Your task to perform on an android device: install app "Duolingo: language lessons" Image 0: 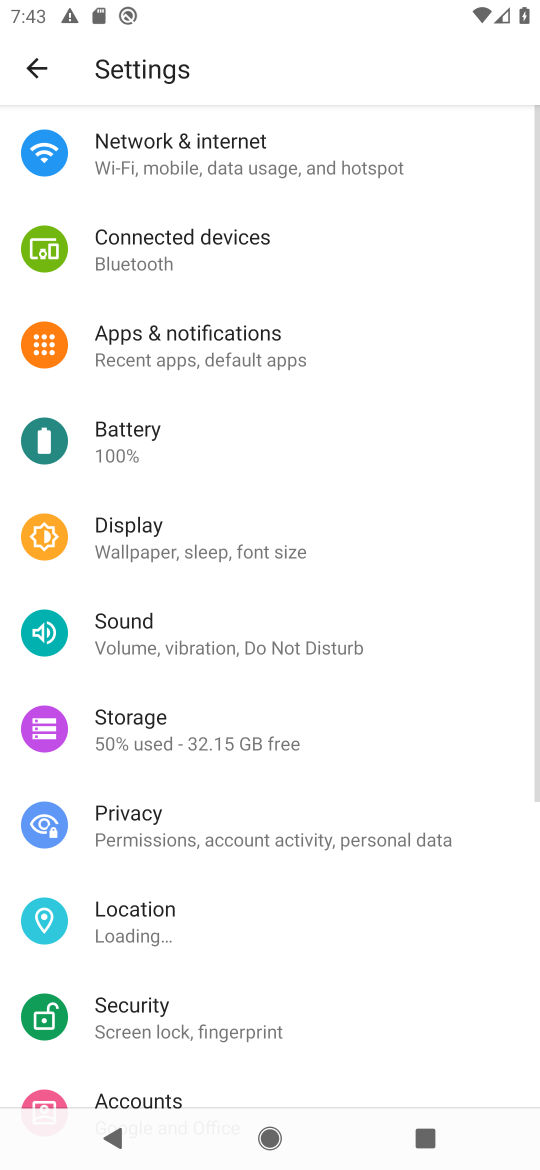
Step 0: press home button
Your task to perform on an android device: install app "Duolingo: language lessons" Image 1: 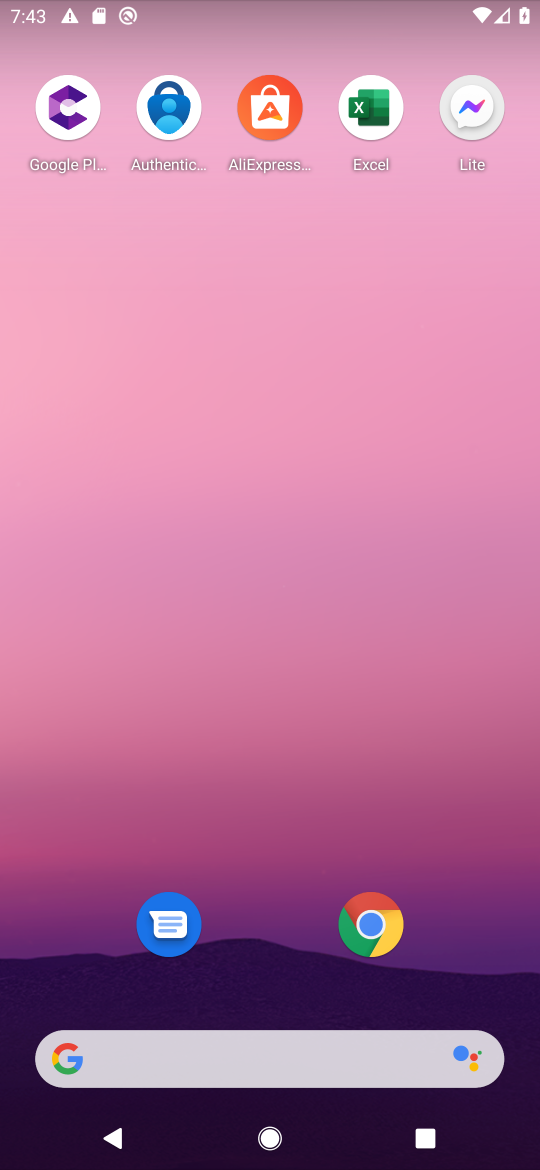
Step 1: drag from (247, 952) to (213, 280)
Your task to perform on an android device: install app "Duolingo: language lessons" Image 2: 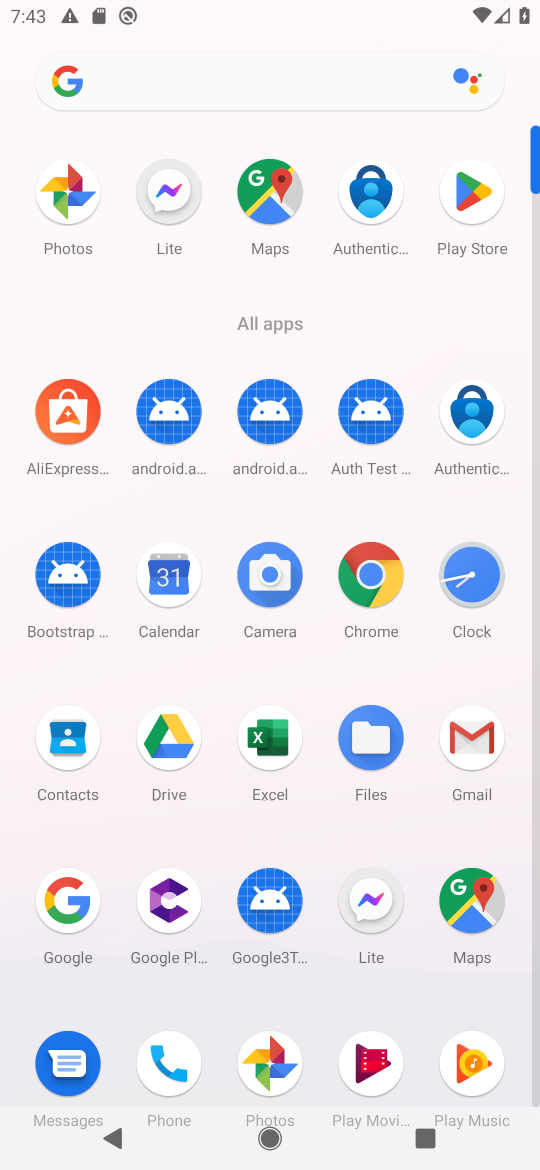
Step 2: click (472, 181)
Your task to perform on an android device: install app "Duolingo: language lessons" Image 3: 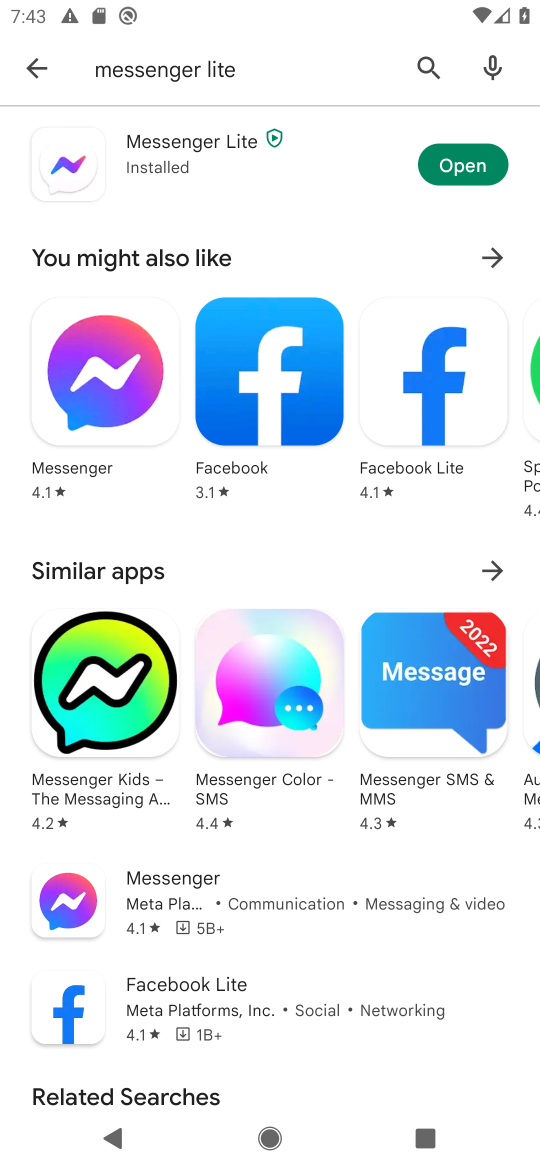
Step 3: click (424, 67)
Your task to perform on an android device: install app "Duolingo: language lessons" Image 4: 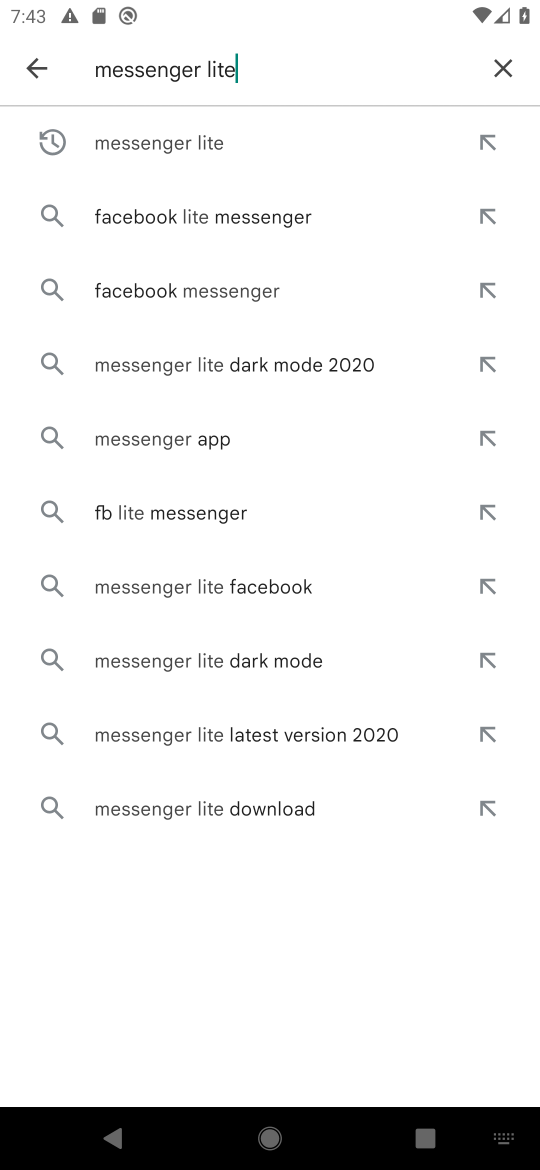
Step 4: click (493, 69)
Your task to perform on an android device: install app "Duolingo: language lessons" Image 5: 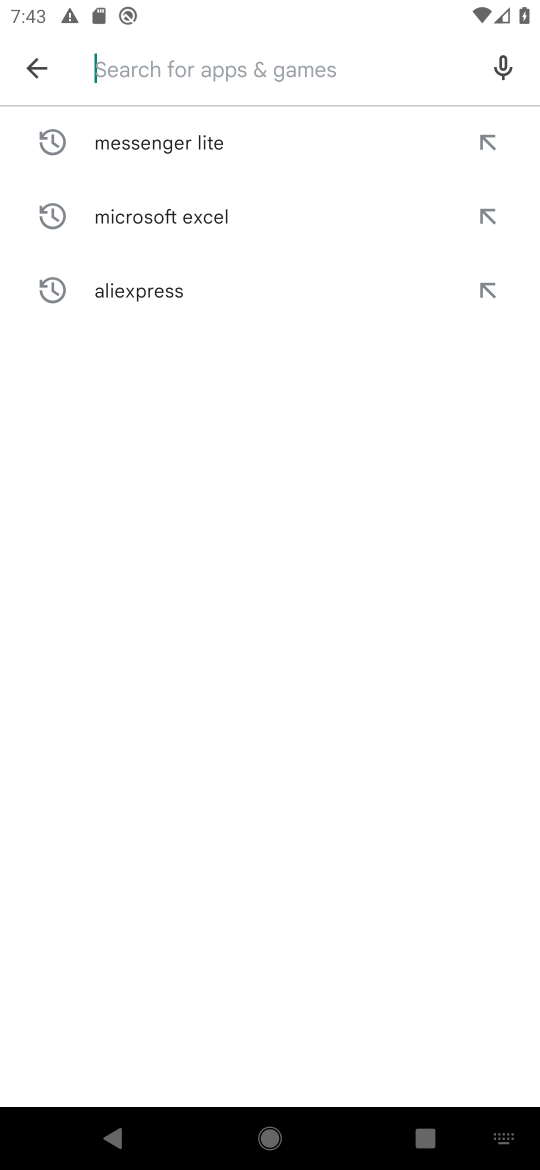
Step 5: type "Duolingo: language lessons"
Your task to perform on an android device: install app "Duolingo: language lessons" Image 6: 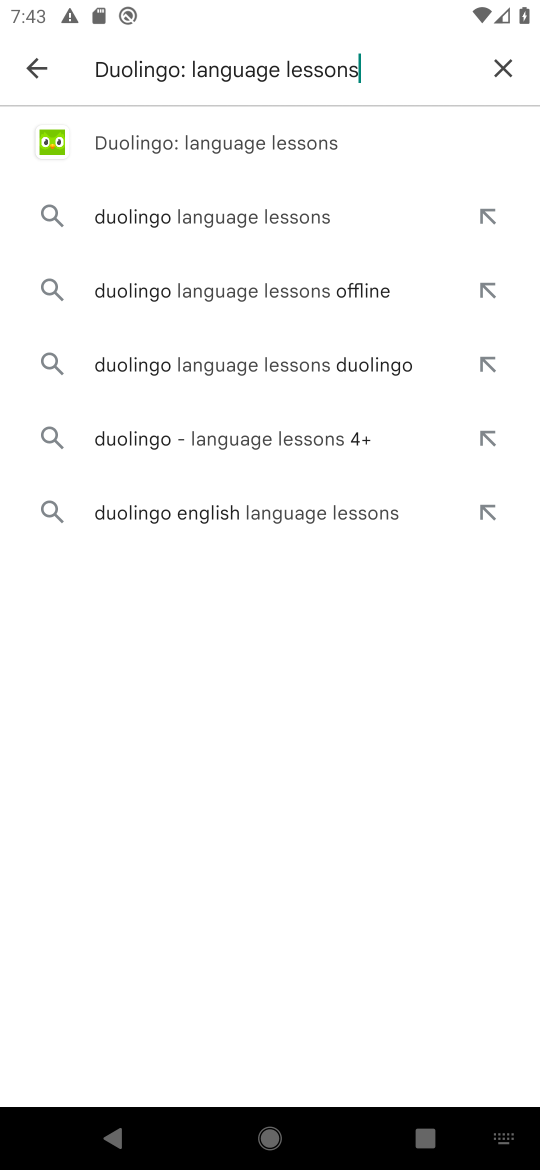
Step 6: click (158, 132)
Your task to perform on an android device: install app "Duolingo: language lessons" Image 7: 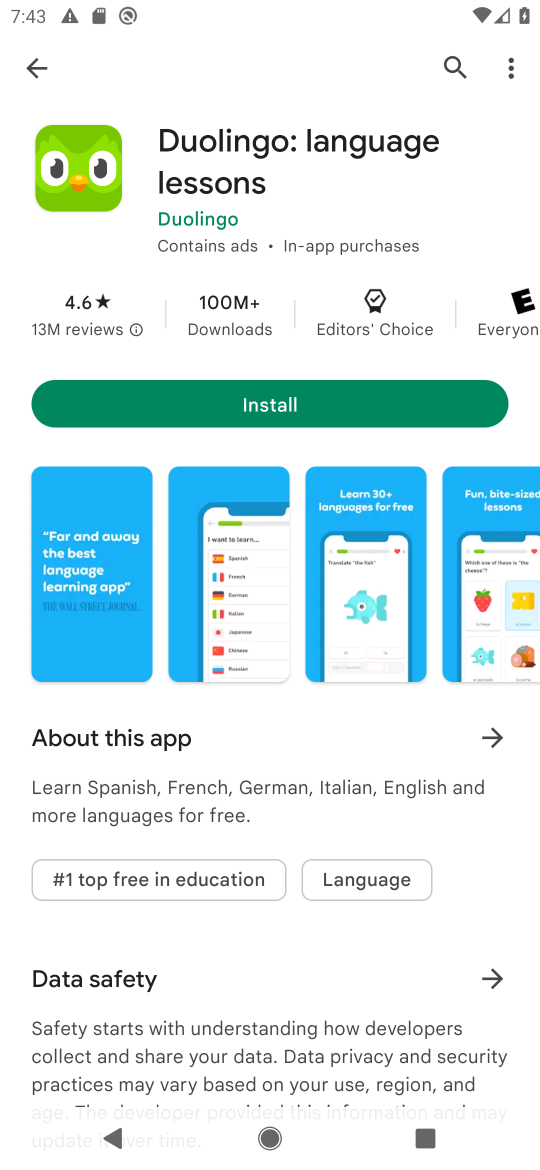
Step 7: click (247, 400)
Your task to perform on an android device: install app "Duolingo: language lessons" Image 8: 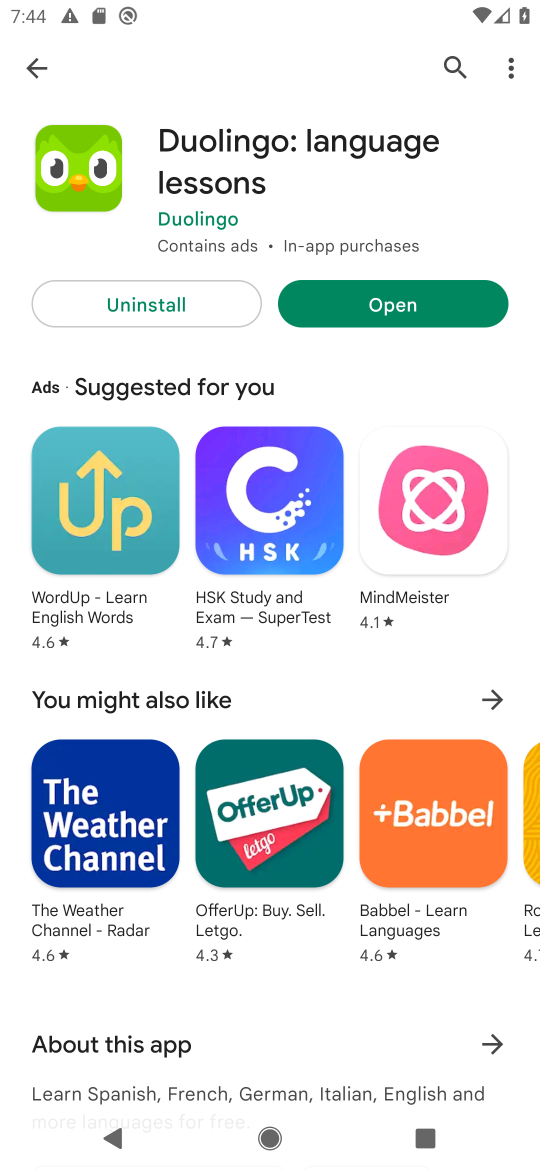
Step 8: click (421, 313)
Your task to perform on an android device: install app "Duolingo: language lessons" Image 9: 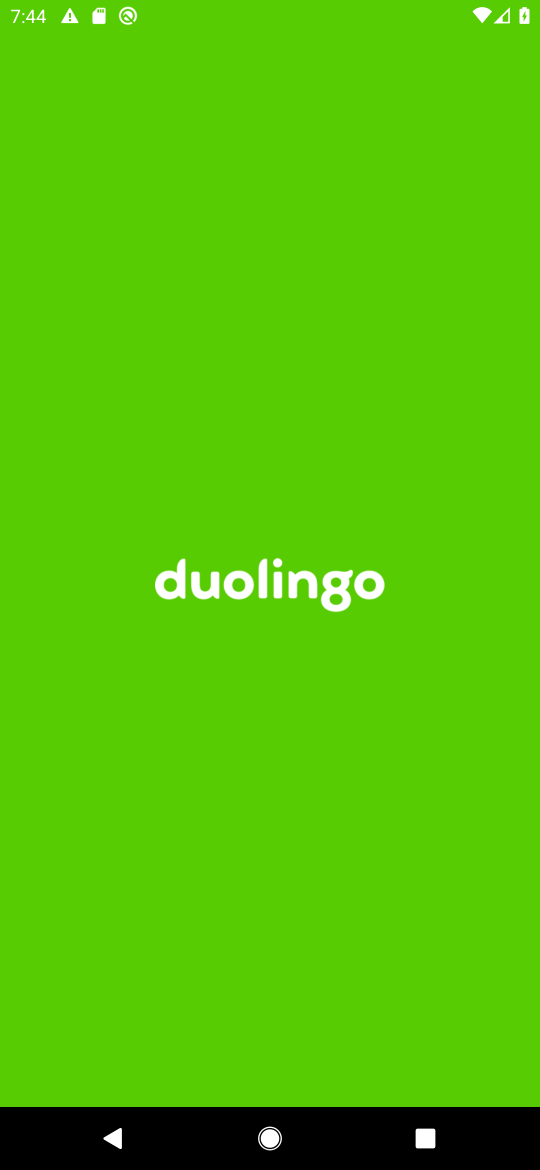
Step 9: task complete